Your task to perform on an android device: Open Maps and search for coffee Image 0: 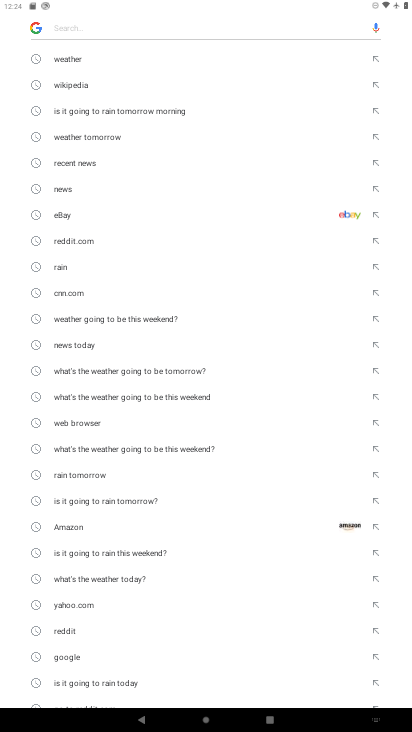
Step 0: press home button
Your task to perform on an android device: Open Maps and search for coffee Image 1: 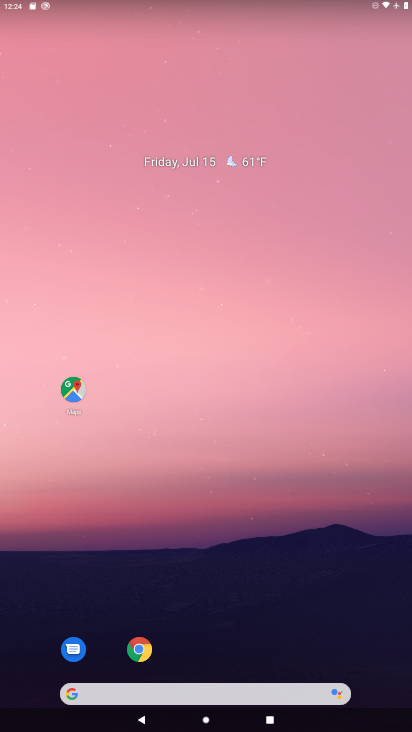
Step 1: click (67, 393)
Your task to perform on an android device: Open Maps and search for coffee Image 2: 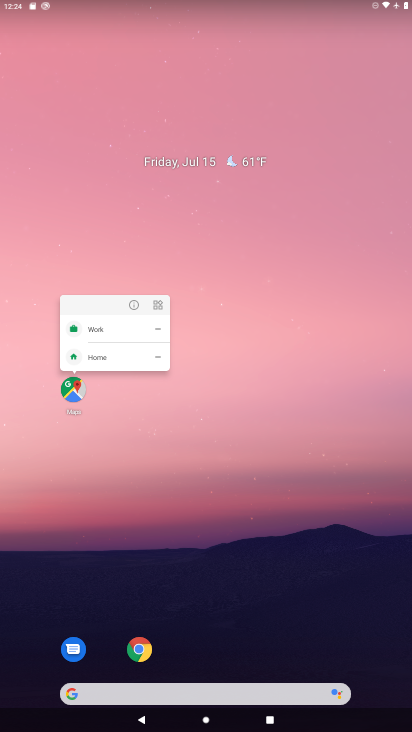
Step 2: click (68, 389)
Your task to perform on an android device: Open Maps and search for coffee Image 3: 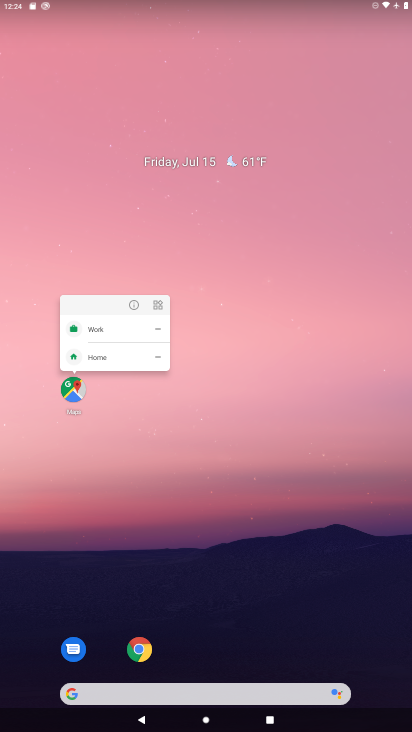
Step 3: click (80, 391)
Your task to perform on an android device: Open Maps and search for coffee Image 4: 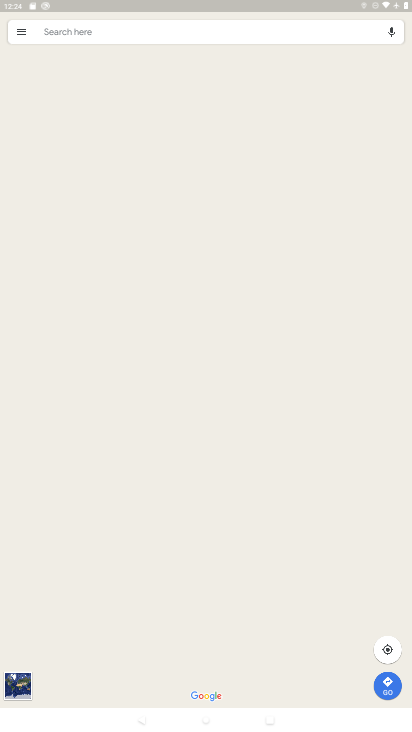
Step 4: click (85, 34)
Your task to perform on an android device: Open Maps and search for coffee Image 5: 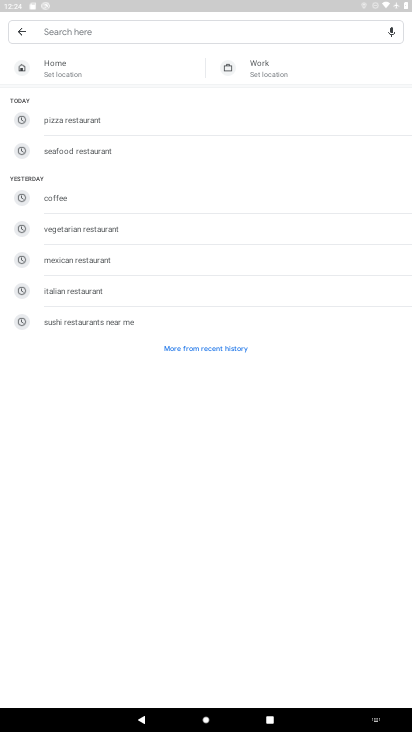
Step 5: type "coffee"
Your task to perform on an android device: Open Maps and search for coffee Image 6: 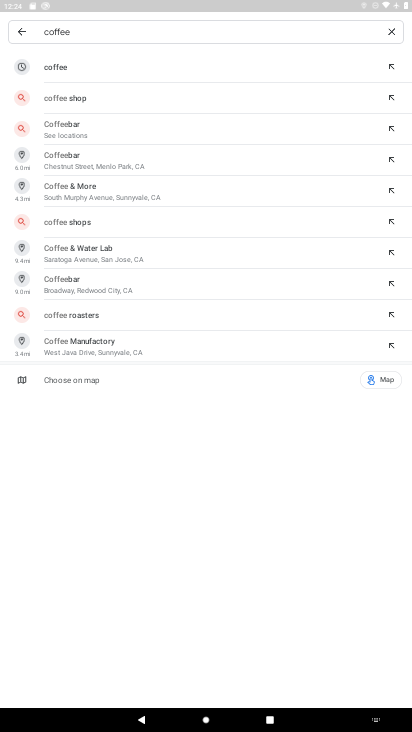
Step 6: click (50, 65)
Your task to perform on an android device: Open Maps and search for coffee Image 7: 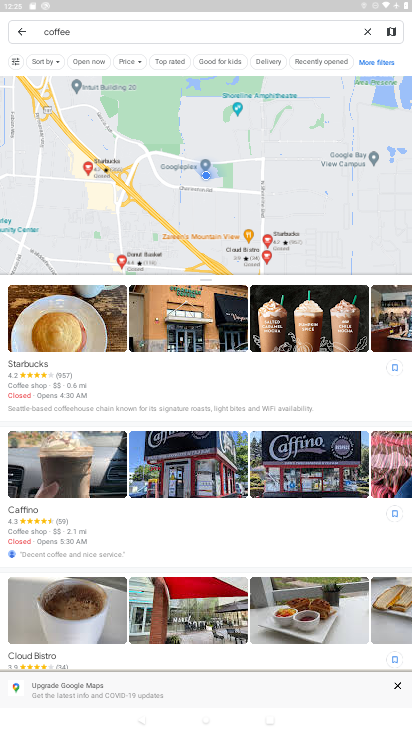
Step 7: task complete